Your task to perform on an android device: open device folders in google photos Image 0: 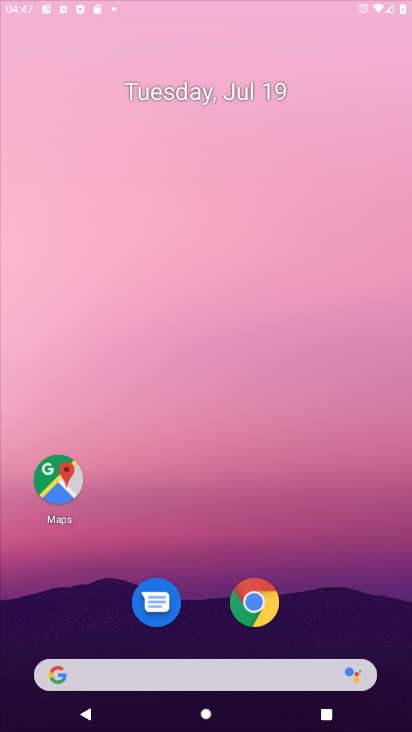
Step 0: press home button
Your task to perform on an android device: open device folders in google photos Image 1: 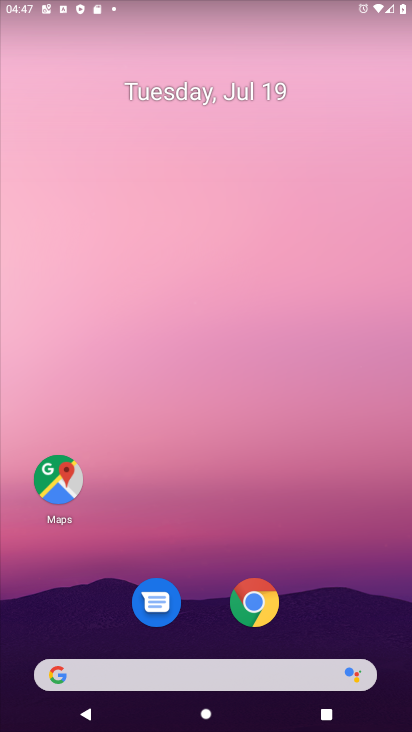
Step 1: drag from (202, 629) to (207, 277)
Your task to perform on an android device: open device folders in google photos Image 2: 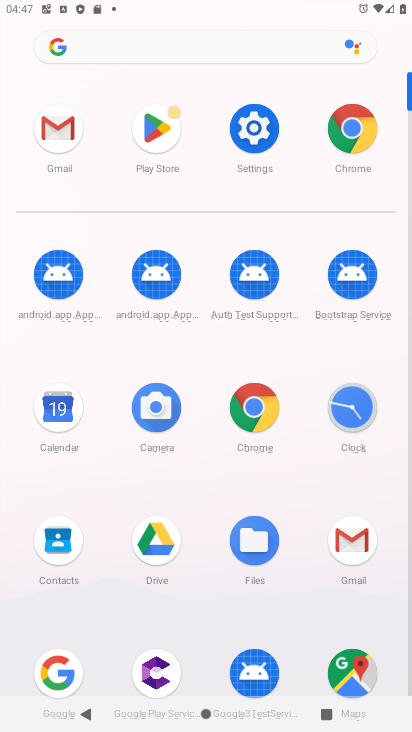
Step 2: drag from (221, 600) to (239, 300)
Your task to perform on an android device: open device folders in google photos Image 3: 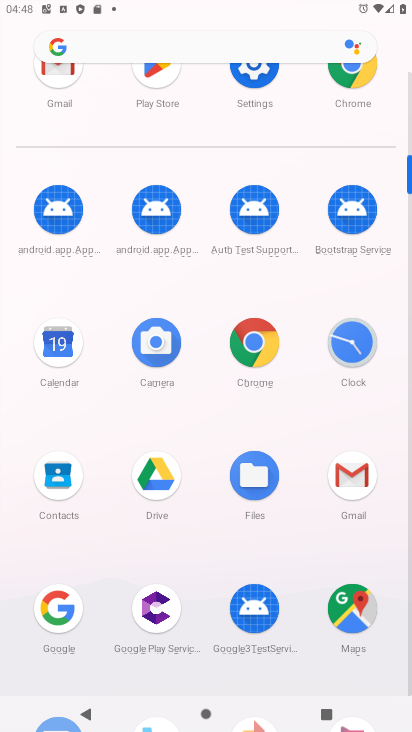
Step 3: drag from (120, 650) to (233, 23)
Your task to perform on an android device: open device folders in google photos Image 4: 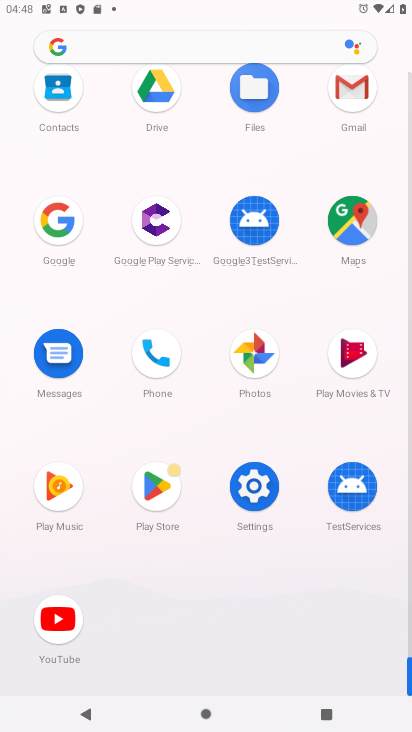
Step 4: click (234, 368)
Your task to perform on an android device: open device folders in google photos Image 5: 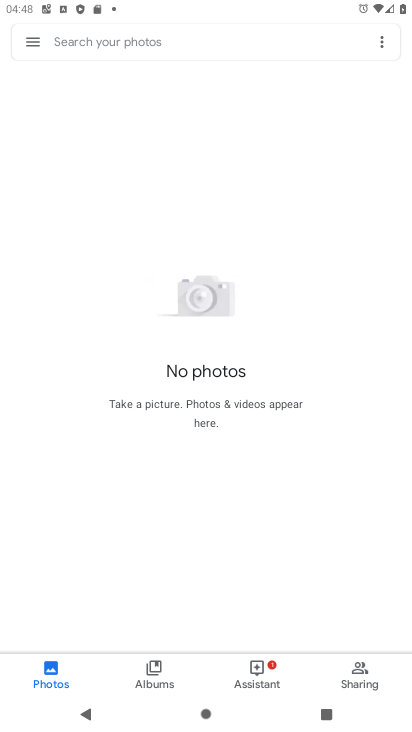
Step 5: click (42, 33)
Your task to perform on an android device: open device folders in google photos Image 6: 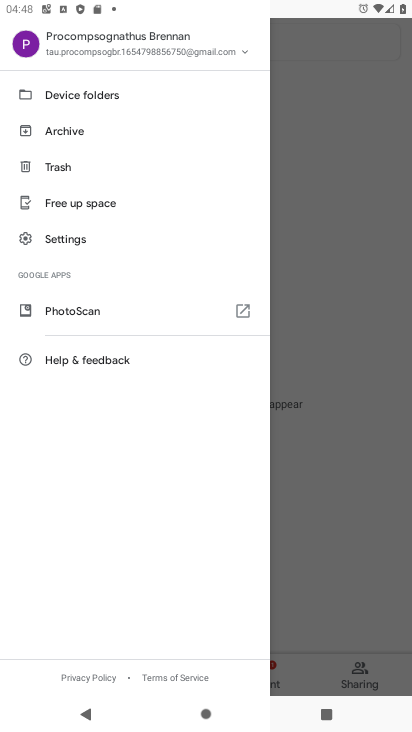
Step 6: click (91, 98)
Your task to perform on an android device: open device folders in google photos Image 7: 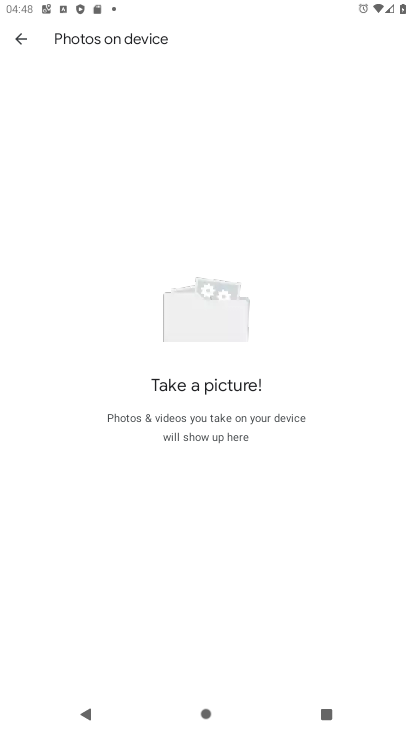
Step 7: task complete